Your task to perform on an android device: Go to Yahoo.com Image 0: 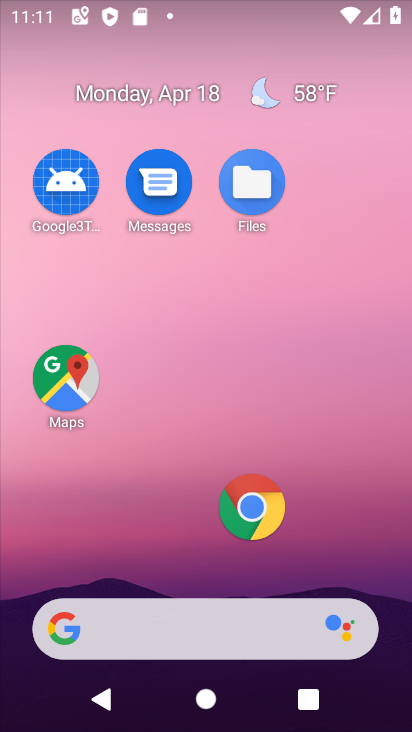
Step 0: drag from (197, 520) to (192, 40)
Your task to perform on an android device: Go to Yahoo.com Image 1: 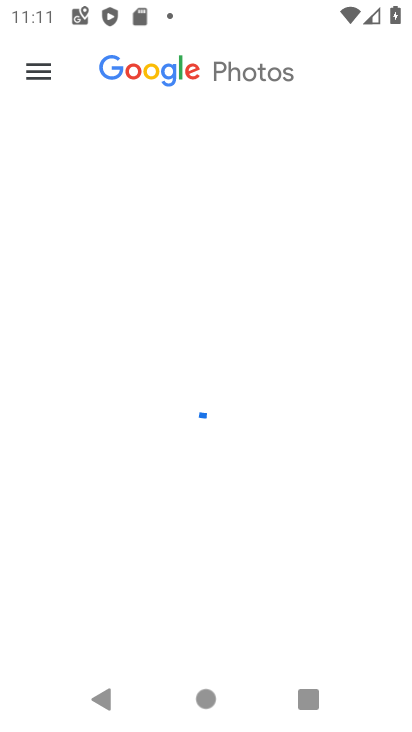
Step 1: press home button
Your task to perform on an android device: Go to Yahoo.com Image 2: 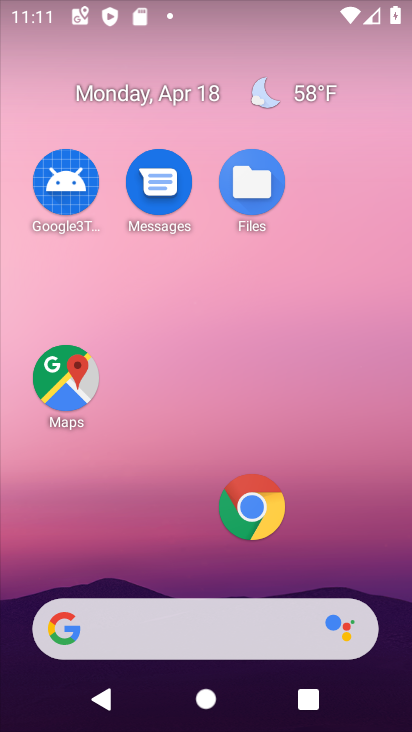
Step 2: click (250, 520)
Your task to perform on an android device: Go to Yahoo.com Image 3: 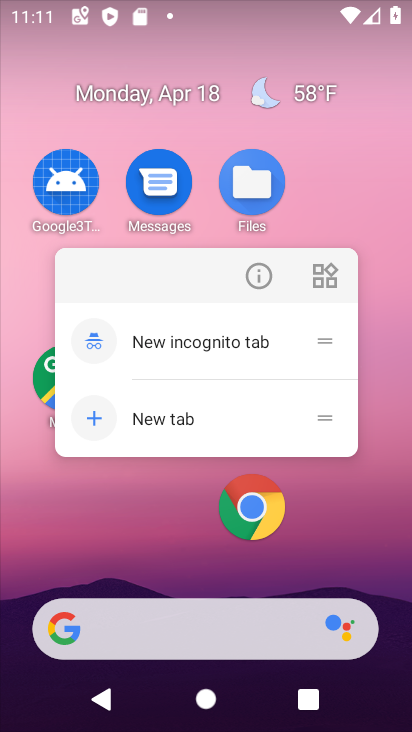
Step 3: click (245, 511)
Your task to perform on an android device: Go to Yahoo.com Image 4: 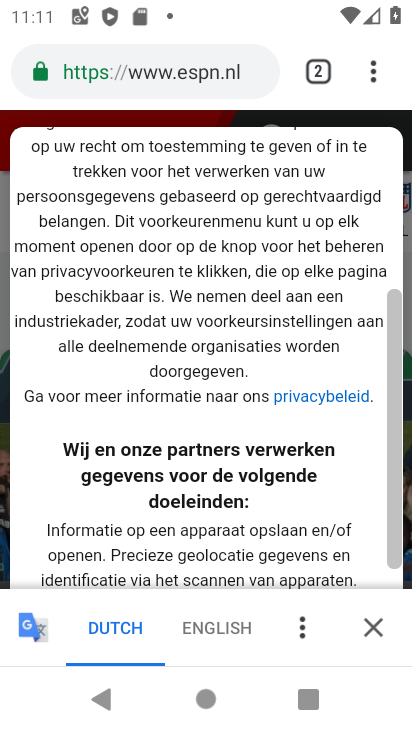
Step 4: click (321, 76)
Your task to perform on an android device: Go to Yahoo.com Image 5: 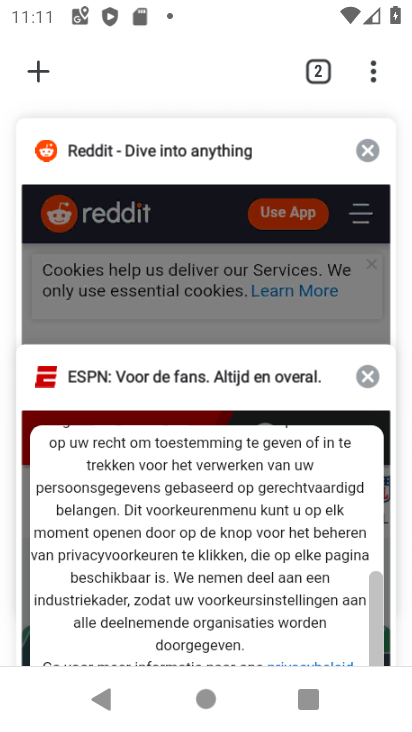
Step 5: click (48, 74)
Your task to perform on an android device: Go to Yahoo.com Image 6: 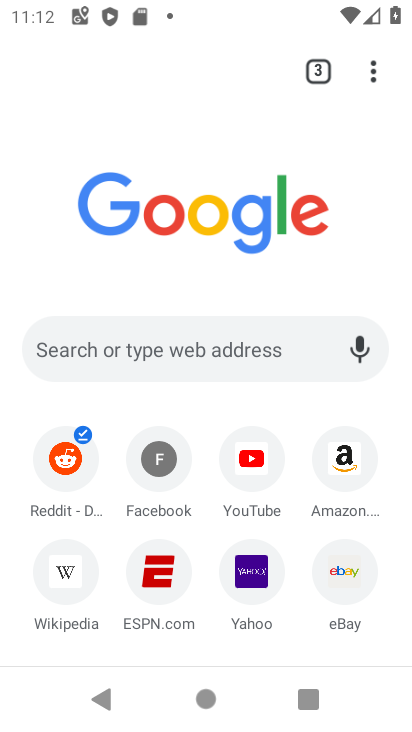
Step 6: click (251, 575)
Your task to perform on an android device: Go to Yahoo.com Image 7: 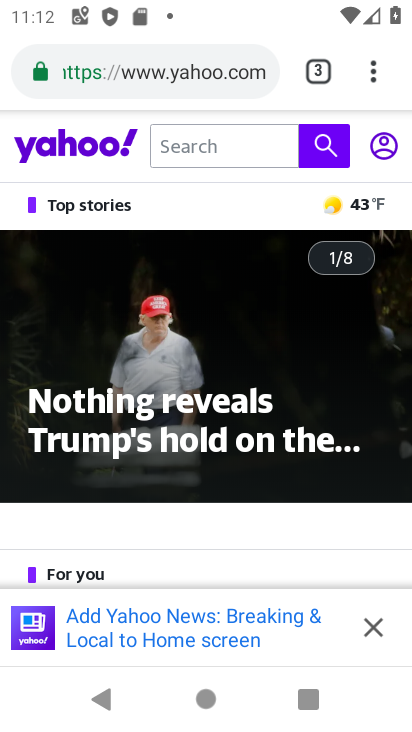
Step 7: click (376, 627)
Your task to perform on an android device: Go to Yahoo.com Image 8: 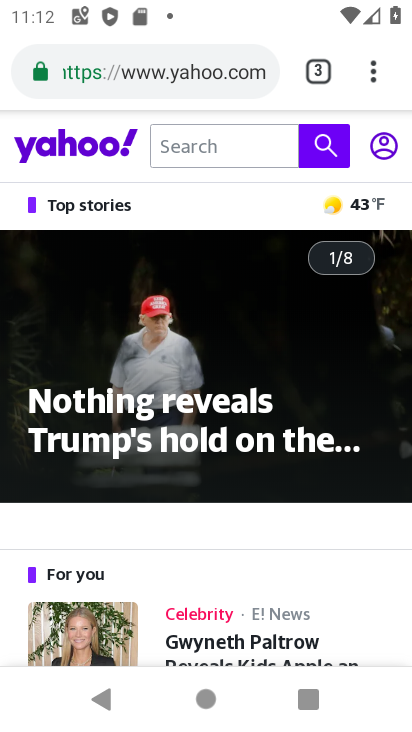
Step 8: task complete